Your task to perform on an android device: empty trash in google photos Image 0: 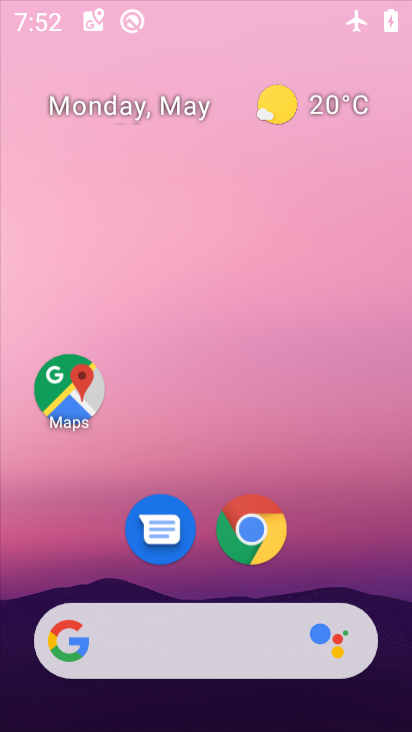
Step 0: press home button
Your task to perform on an android device: empty trash in google photos Image 1: 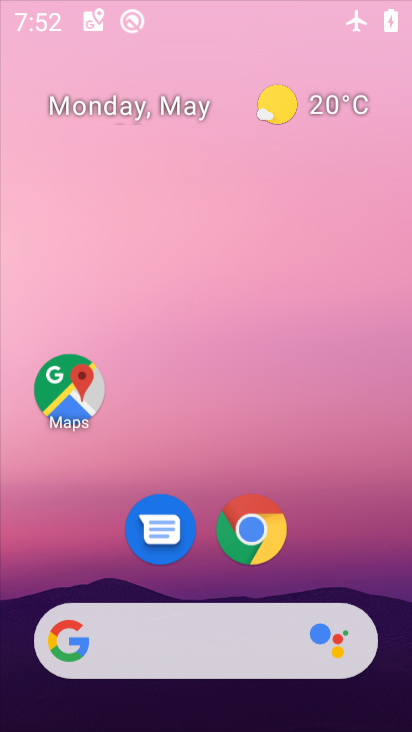
Step 1: drag from (232, 351) to (239, 420)
Your task to perform on an android device: empty trash in google photos Image 2: 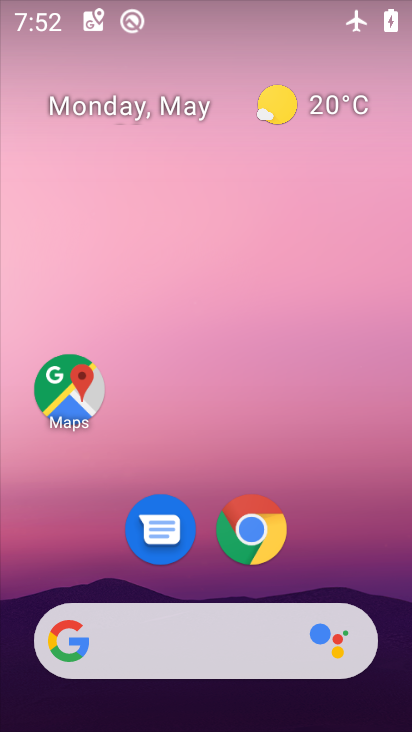
Step 2: drag from (75, 592) to (277, 115)
Your task to perform on an android device: empty trash in google photos Image 3: 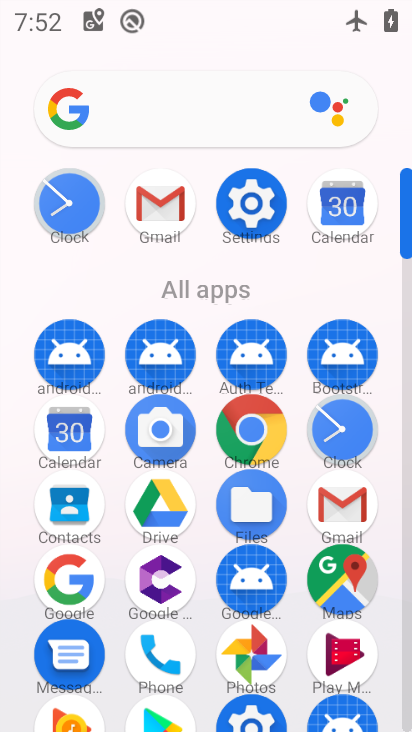
Step 3: click (241, 665)
Your task to perform on an android device: empty trash in google photos Image 4: 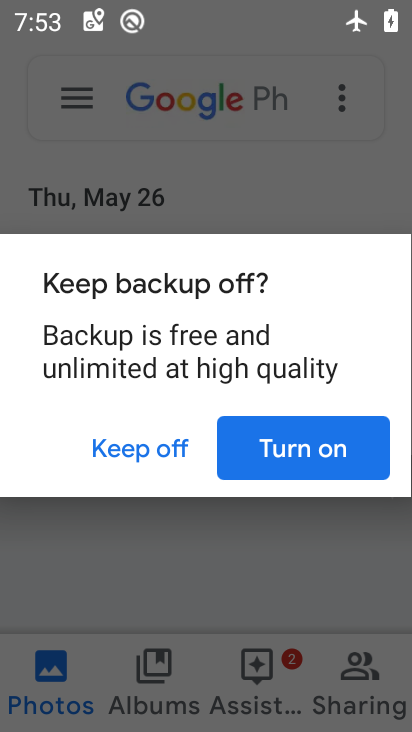
Step 4: click (348, 450)
Your task to perform on an android device: empty trash in google photos Image 5: 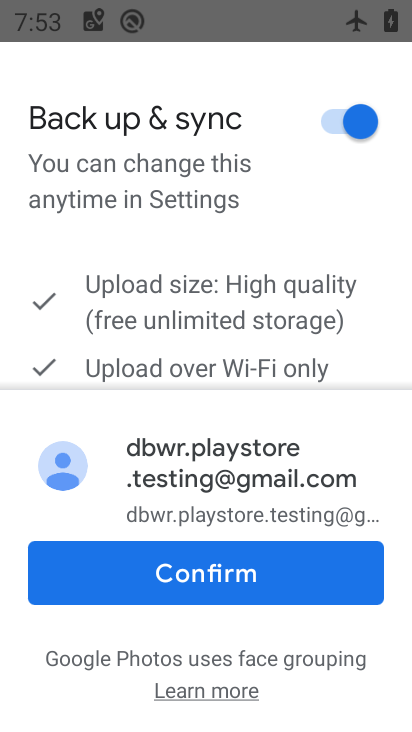
Step 5: click (99, 559)
Your task to perform on an android device: empty trash in google photos Image 6: 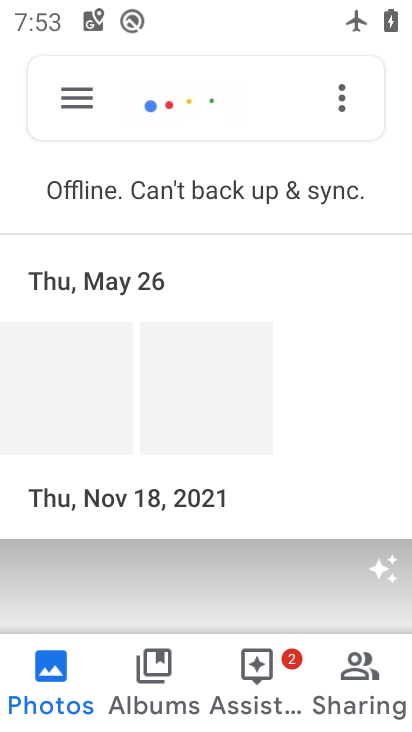
Step 6: click (91, 107)
Your task to perform on an android device: empty trash in google photos Image 7: 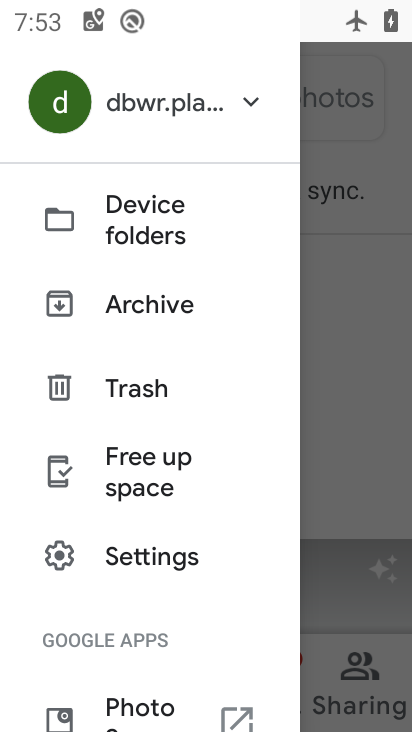
Step 7: click (157, 393)
Your task to perform on an android device: empty trash in google photos Image 8: 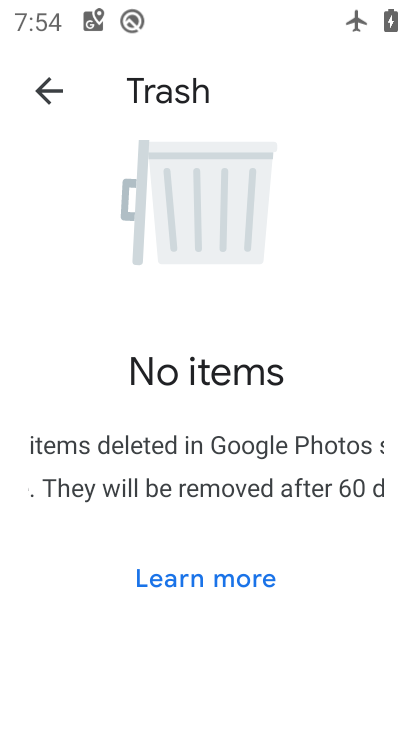
Step 8: task complete